Your task to perform on an android device: turn smart compose on in the gmail app Image 0: 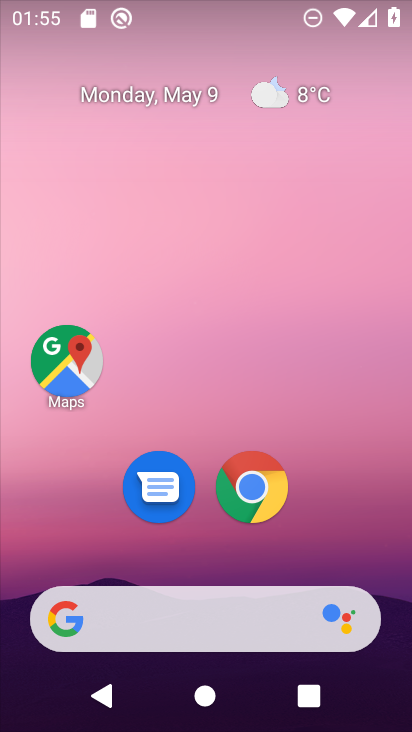
Step 0: drag from (377, 543) to (352, 36)
Your task to perform on an android device: turn smart compose on in the gmail app Image 1: 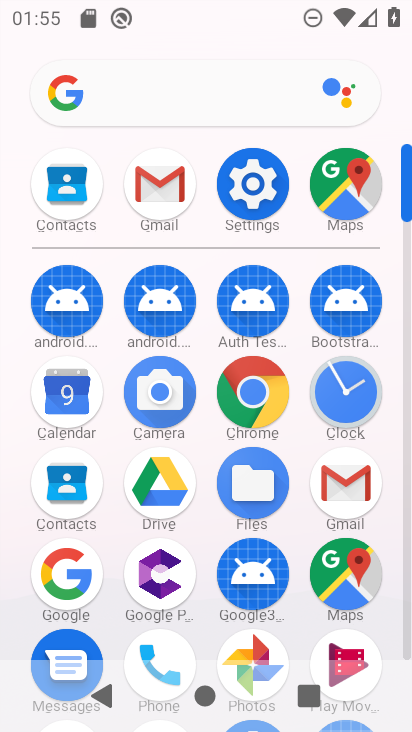
Step 1: click (348, 468)
Your task to perform on an android device: turn smart compose on in the gmail app Image 2: 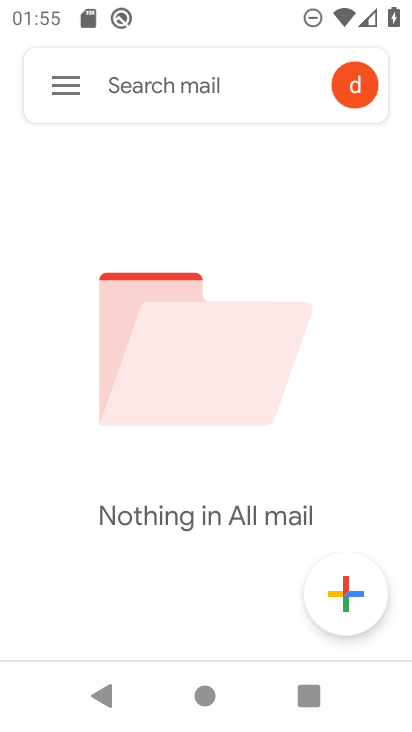
Step 2: click (69, 83)
Your task to perform on an android device: turn smart compose on in the gmail app Image 3: 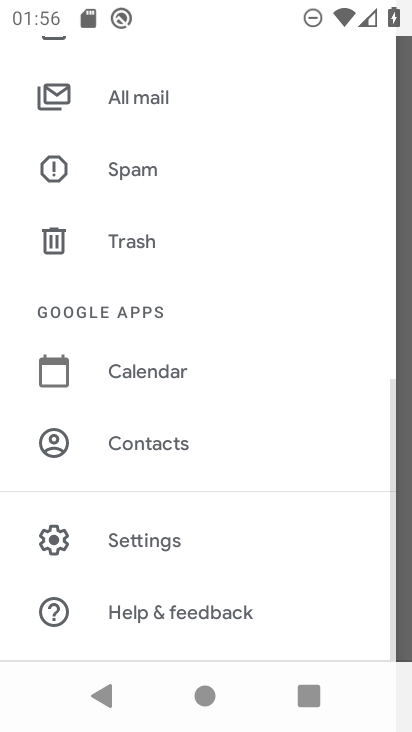
Step 3: click (179, 539)
Your task to perform on an android device: turn smart compose on in the gmail app Image 4: 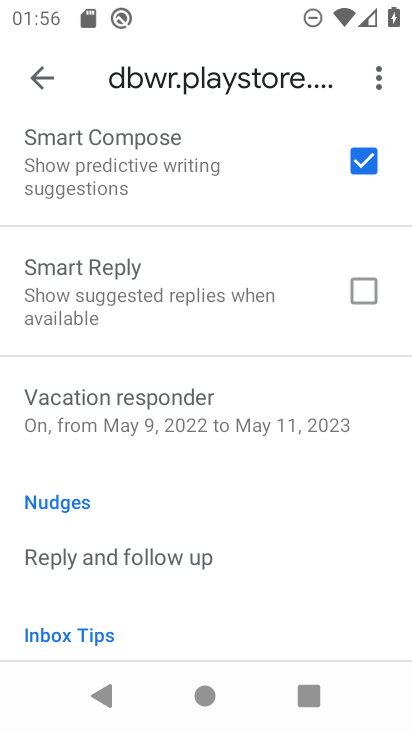
Step 4: task complete